Your task to perform on an android device: clear all cookies in the chrome app Image 0: 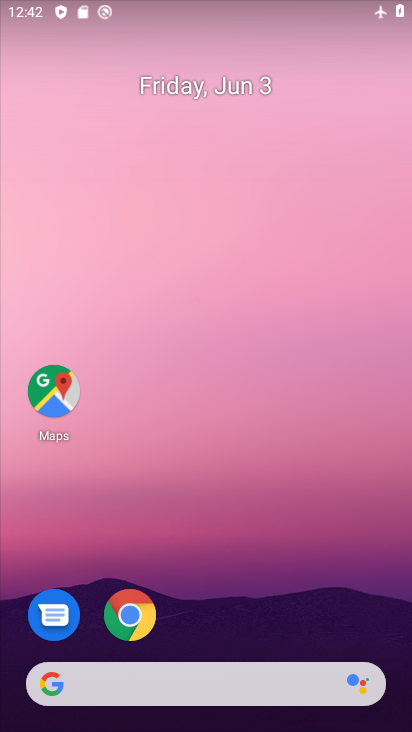
Step 0: click (131, 604)
Your task to perform on an android device: clear all cookies in the chrome app Image 1: 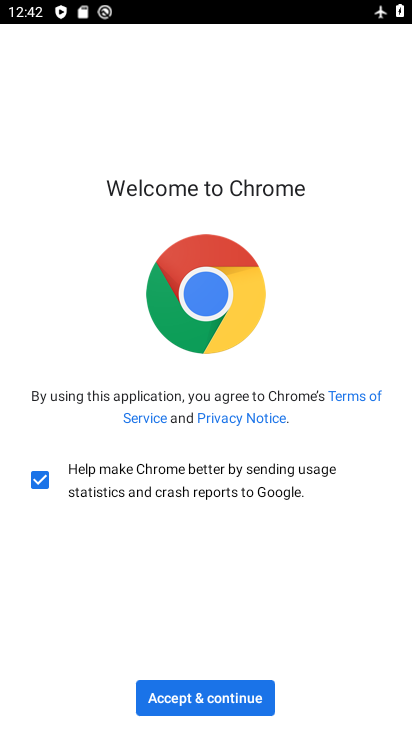
Step 1: click (231, 695)
Your task to perform on an android device: clear all cookies in the chrome app Image 2: 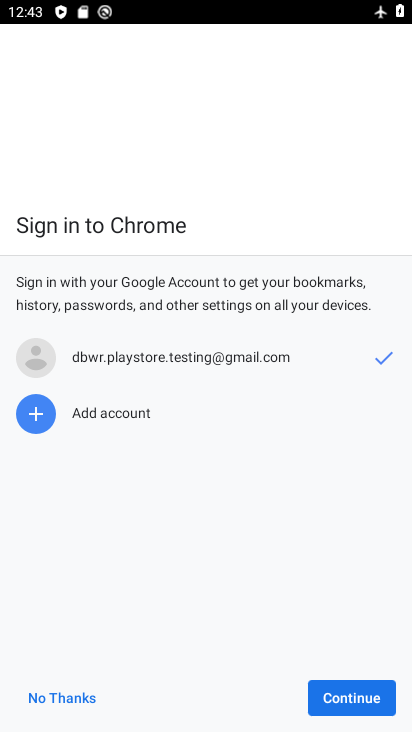
Step 2: click (365, 707)
Your task to perform on an android device: clear all cookies in the chrome app Image 3: 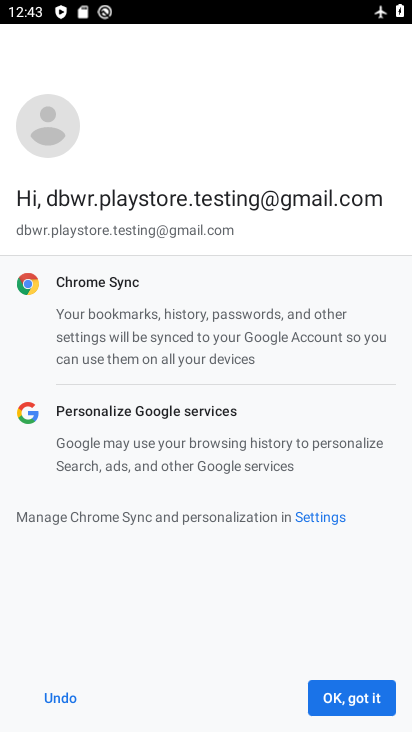
Step 3: click (356, 698)
Your task to perform on an android device: clear all cookies in the chrome app Image 4: 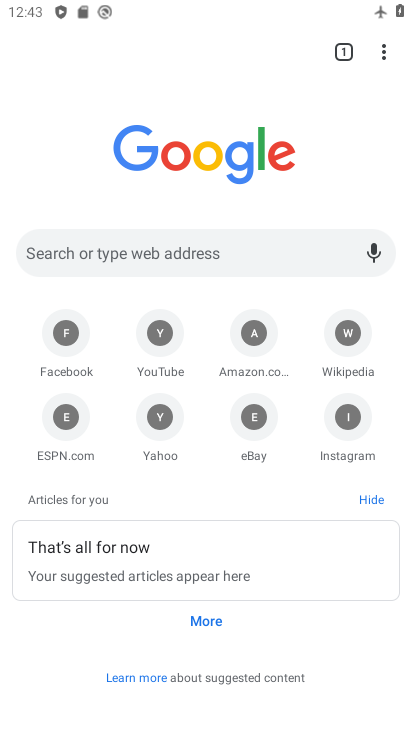
Step 4: click (376, 43)
Your task to perform on an android device: clear all cookies in the chrome app Image 5: 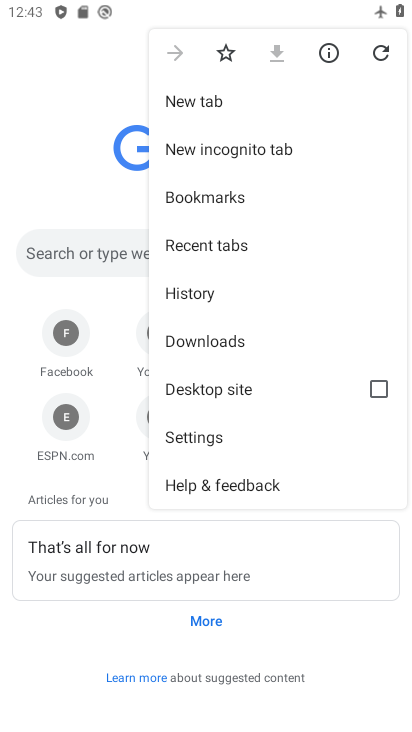
Step 5: click (192, 292)
Your task to perform on an android device: clear all cookies in the chrome app Image 6: 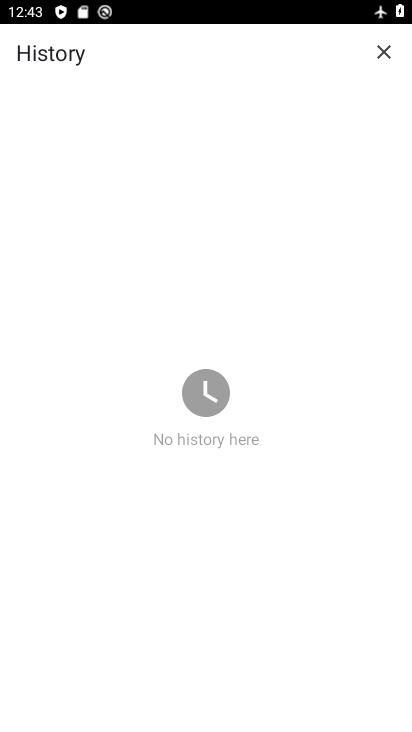
Step 6: task complete